Your task to perform on an android device: uninstall "Adobe Acrobat Reader" Image 0: 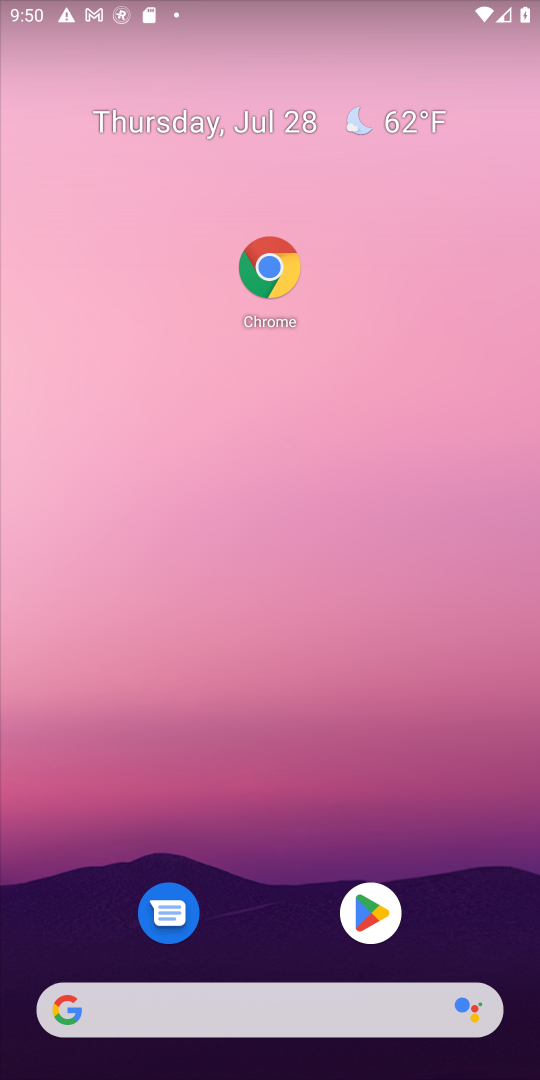
Step 0: click (389, 895)
Your task to perform on an android device: uninstall "Adobe Acrobat Reader" Image 1: 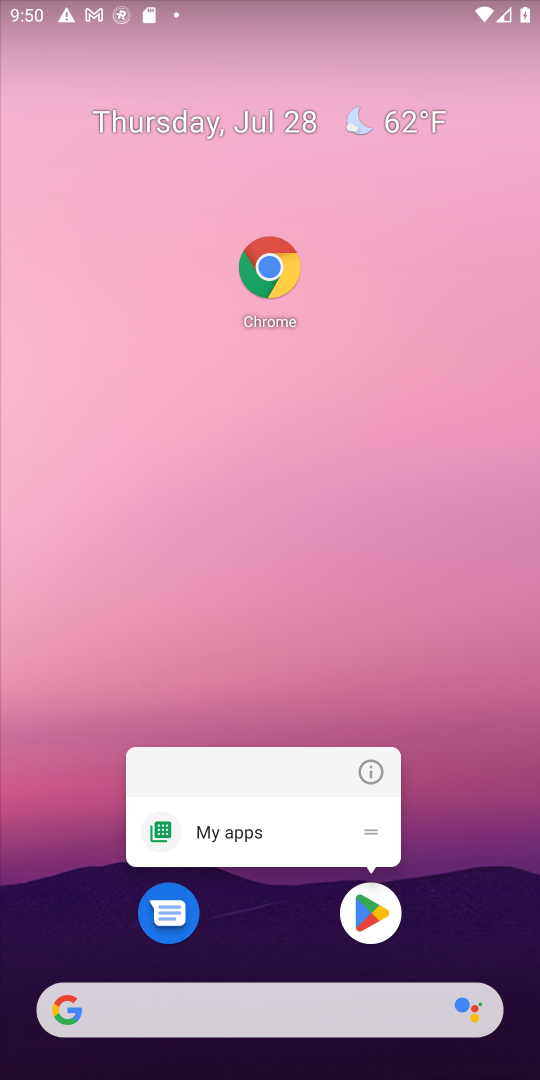
Step 1: click (378, 908)
Your task to perform on an android device: uninstall "Adobe Acrobat Reader" Image 2: 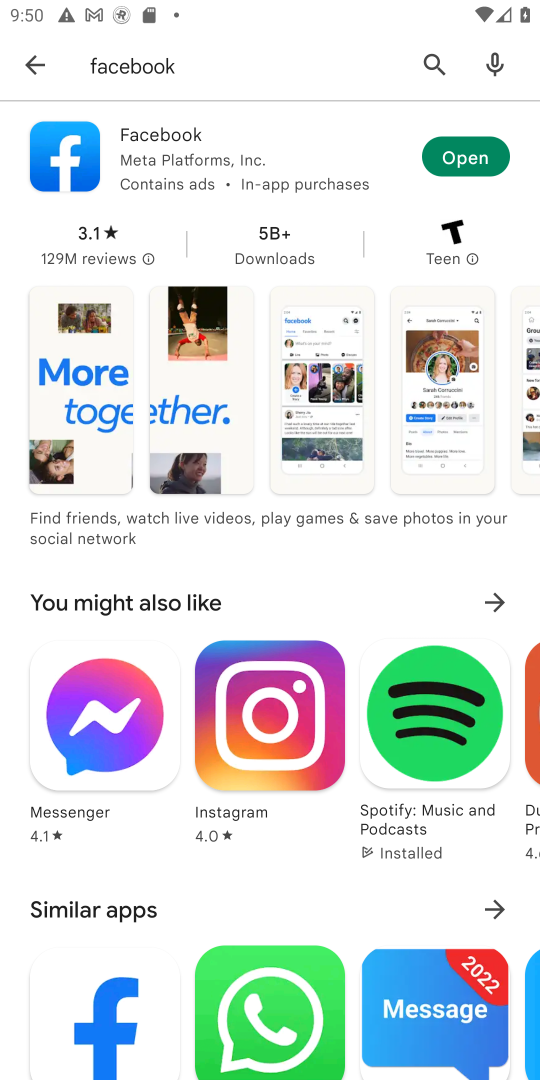
Step 2: click (430, 61)
Your task to perform on an android device: uninstall "Adobe Acrobat Reader" Image 3: 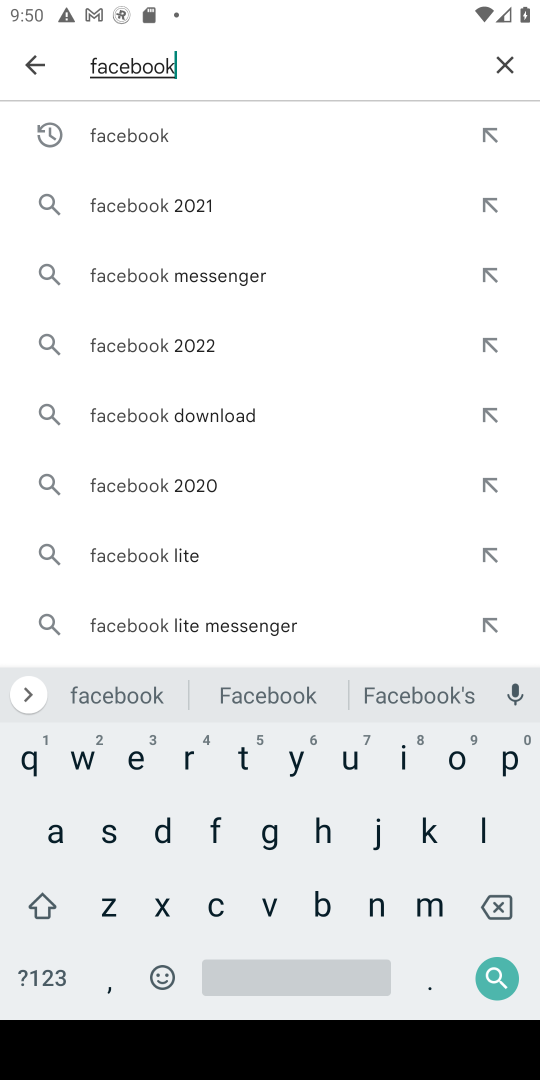
Step 3: click (500, 63)
Your task to perform on an android device: uninstall "Adobe Acrobat Reader" Image 4: 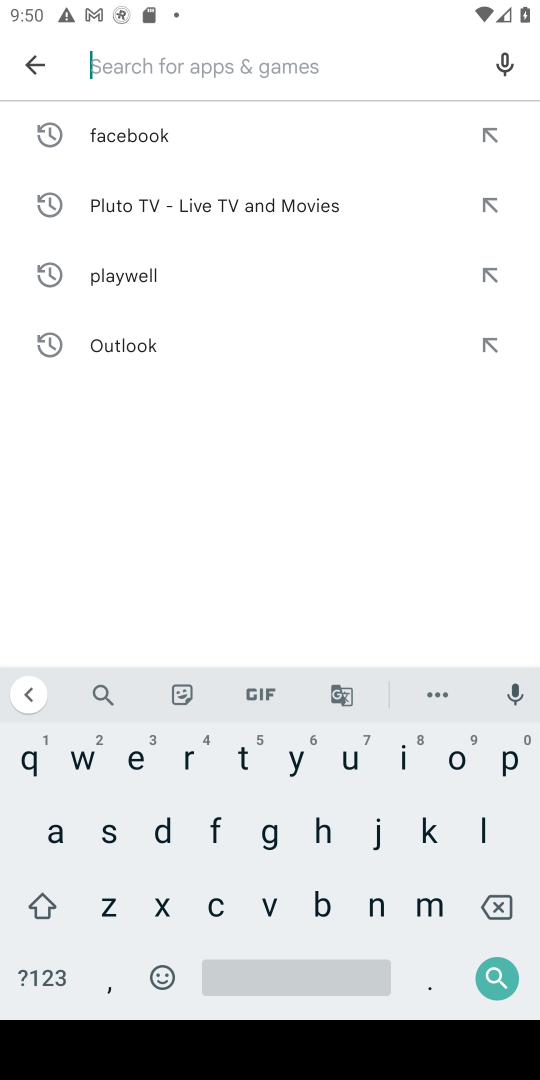
Step 4: click (50, 830)
Your task to perform on an android device: uninstall "Adobe Acrobat Reader" Image 5: 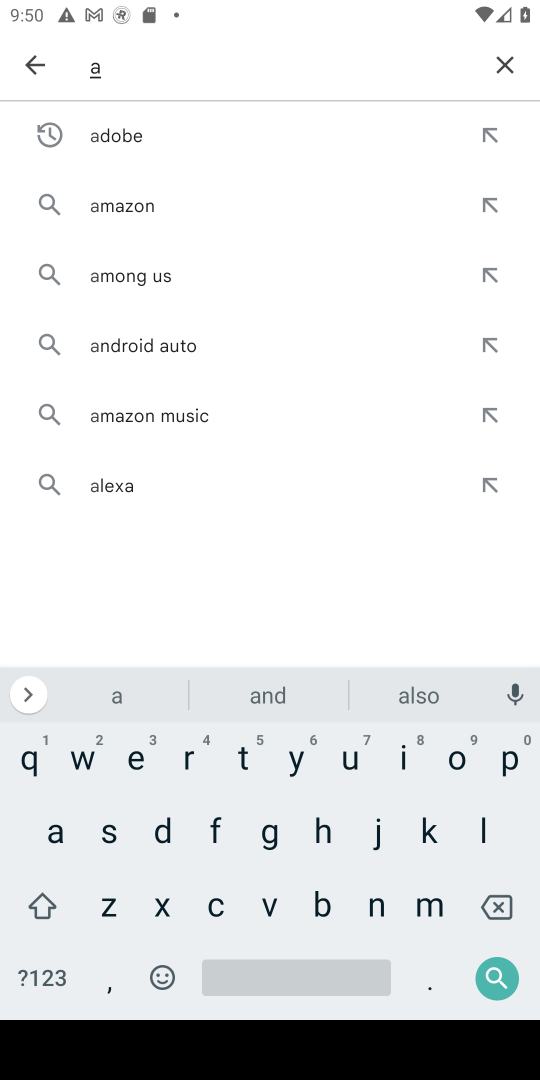
Step 5: click (160, 832)
Your task to perform on an android device: uninstall "Adobe Acrobat Reader" Image 6: 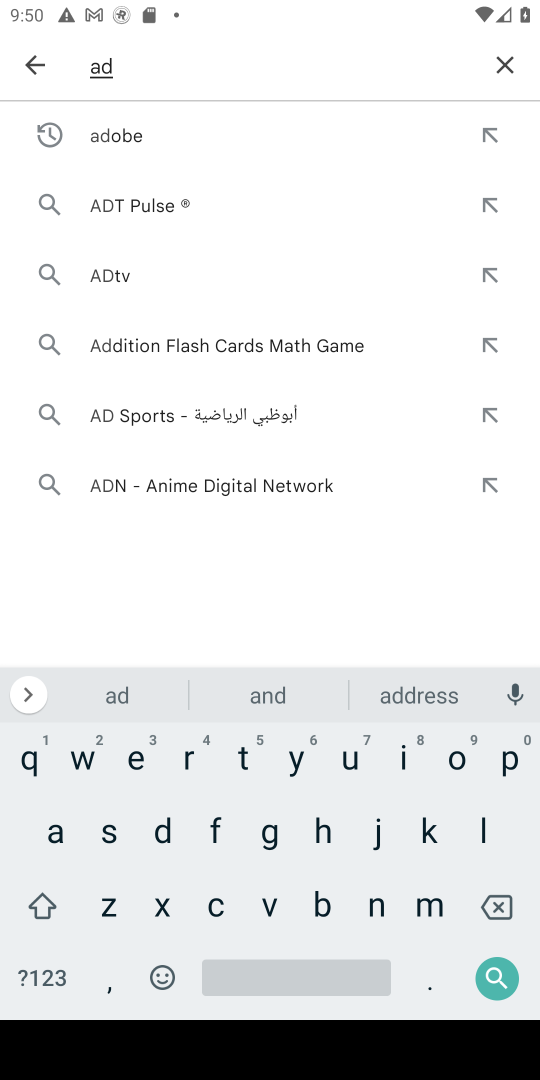
Step 6: click (168, 136)
Your task to perform on an android device: uninstall "Adobe Acrobat Reader" Image 7: 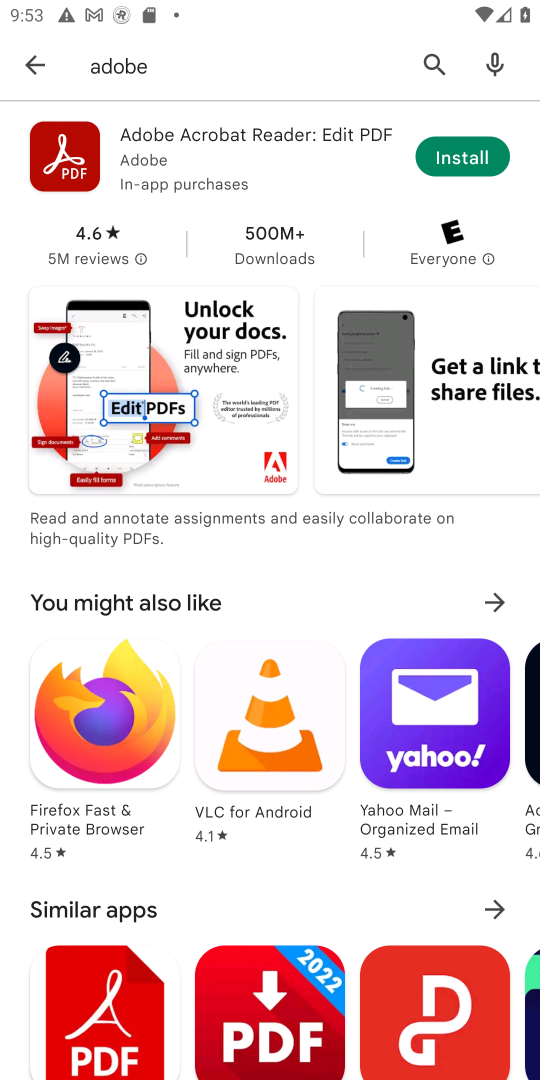
Step 7: task complete